Your task to perform on an android device: Open Chrome and go to settings Image 0: 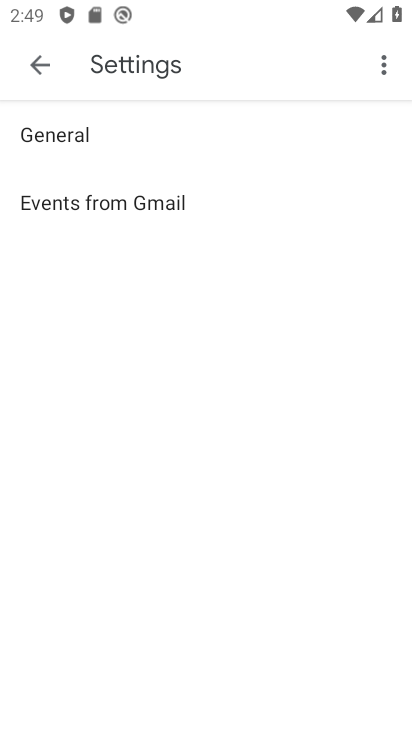
Step 0: press home button
Your task to perform on an android device: Open Chrome and go to settings Image 1: 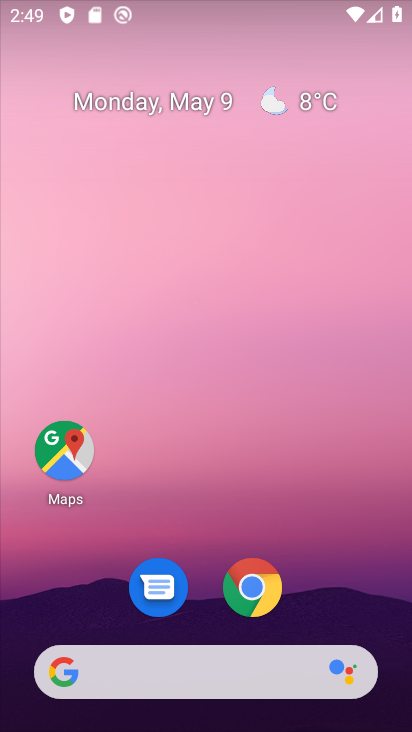
Step 1: drag from (202, 505) to (210, 161)
Your task to perform on an android device: Open Chrome and go to settings Image 2: 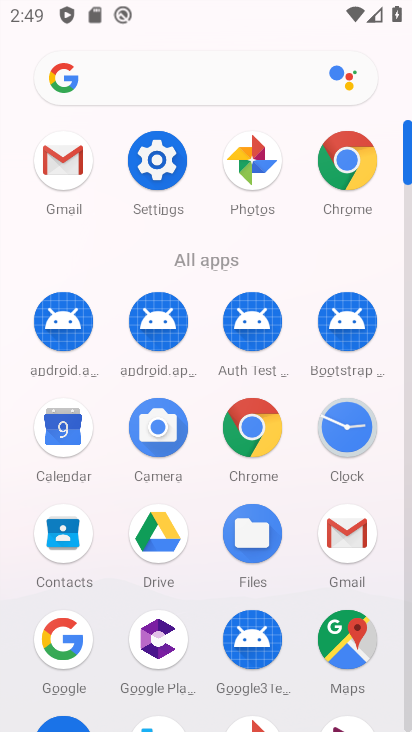
Step 2: click (239, 453)
Your task to perform on an android device: Open Chrome and go to settings Image 3: 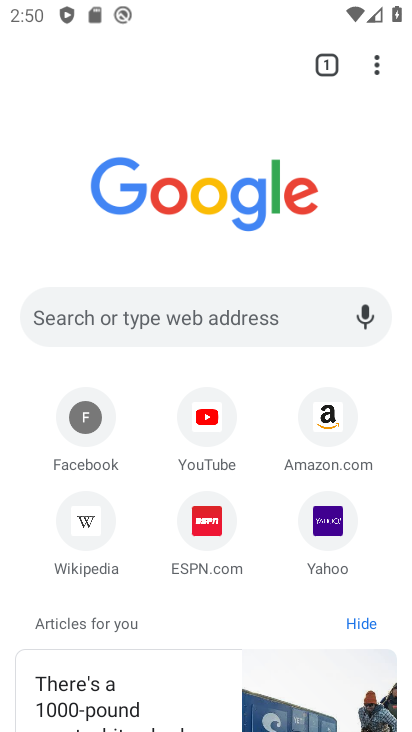
Step 3: click (380, 80)
Your task to perform on an android device: Open Chrome and go to settings Image 4: 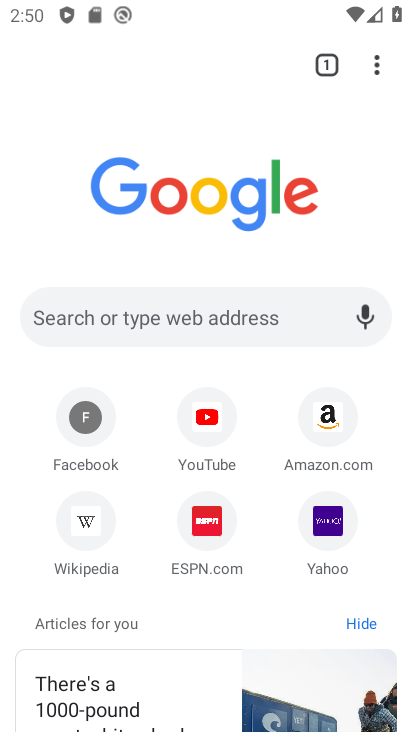
Step 4: click (376, 76)
Your task to perform on an android device: Open Chrome and go to settings Image 5: 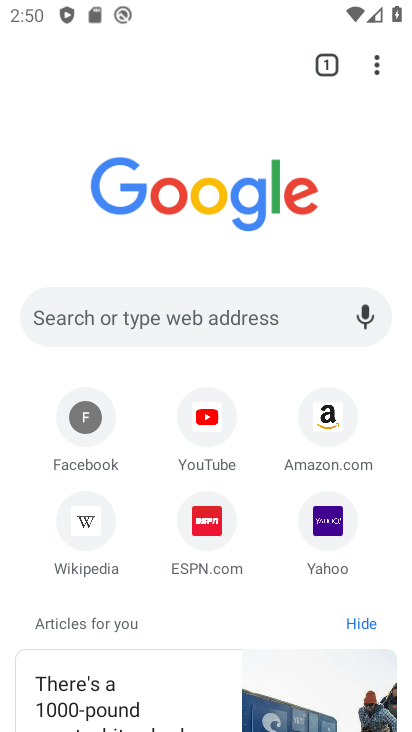
Step 5: click (377, 68)
Your task to perform on an android device: Open Chrome and go to settings Image 6: 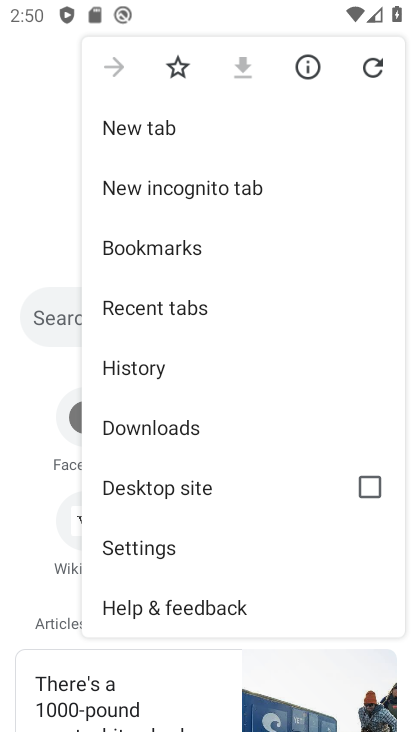
Step 6: click (172, 546)
Your task to perform on an android device: Open Chrome and go to settings Image 7: 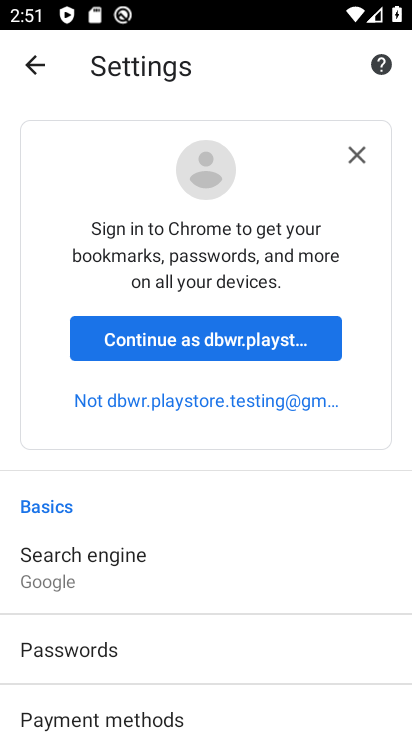
Step 7: task complete